Your task to perform on an android device: Go to Wikipedia Image 0: 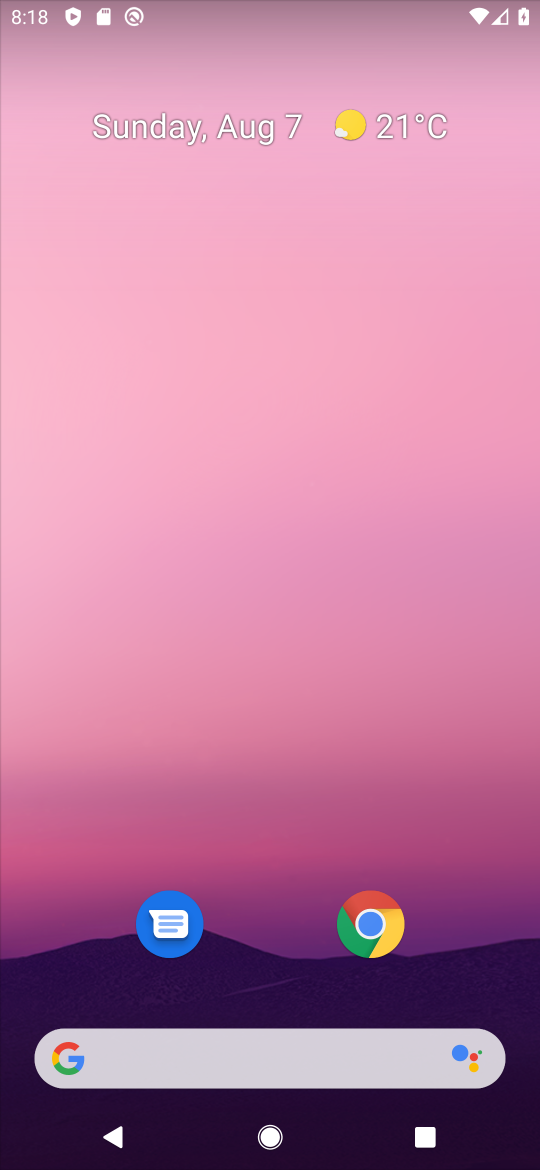
Step 0: click (380, 921)
Your task to perform on an android device: Go to Wikipedia Image 1: 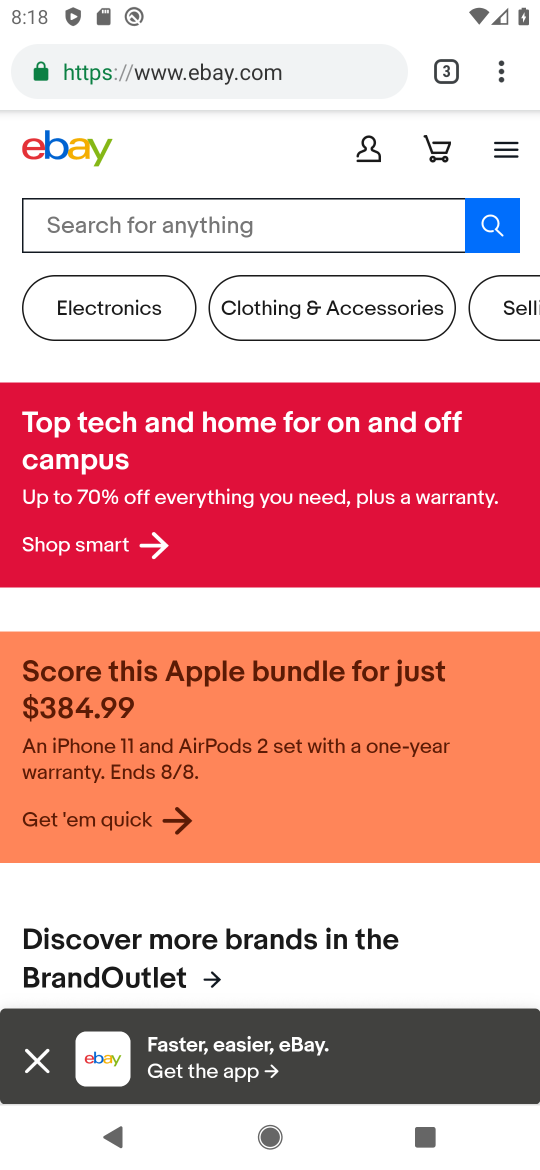
Step 1: click (503, 72)
Your task to perform on an android device: Go to Wikipedia Image 2: 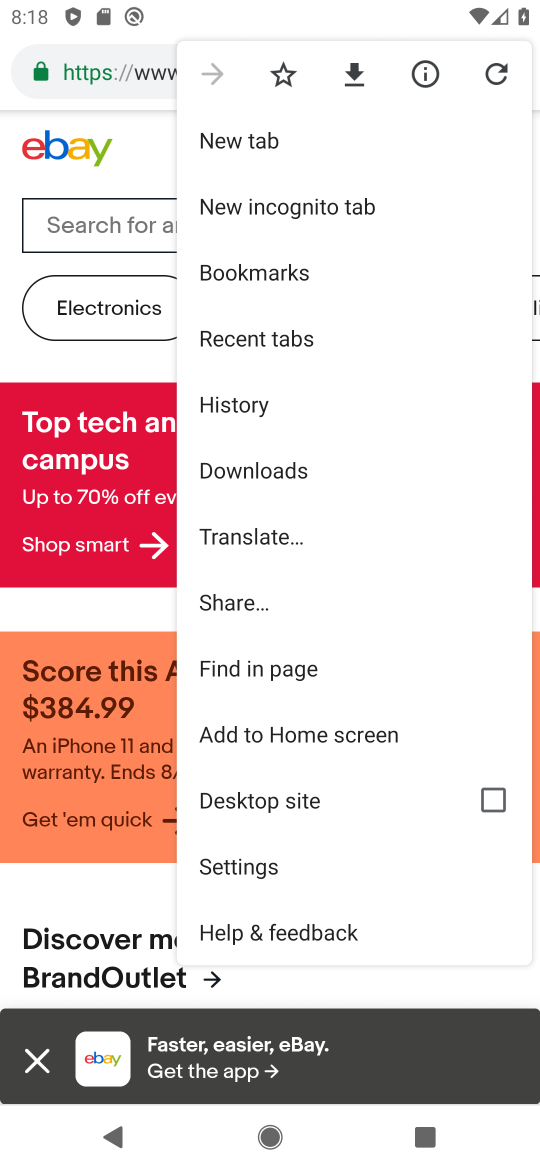
Step 2: click (324, 135)
Your task to perform on an android device: Go to Wikipedia Image 3: 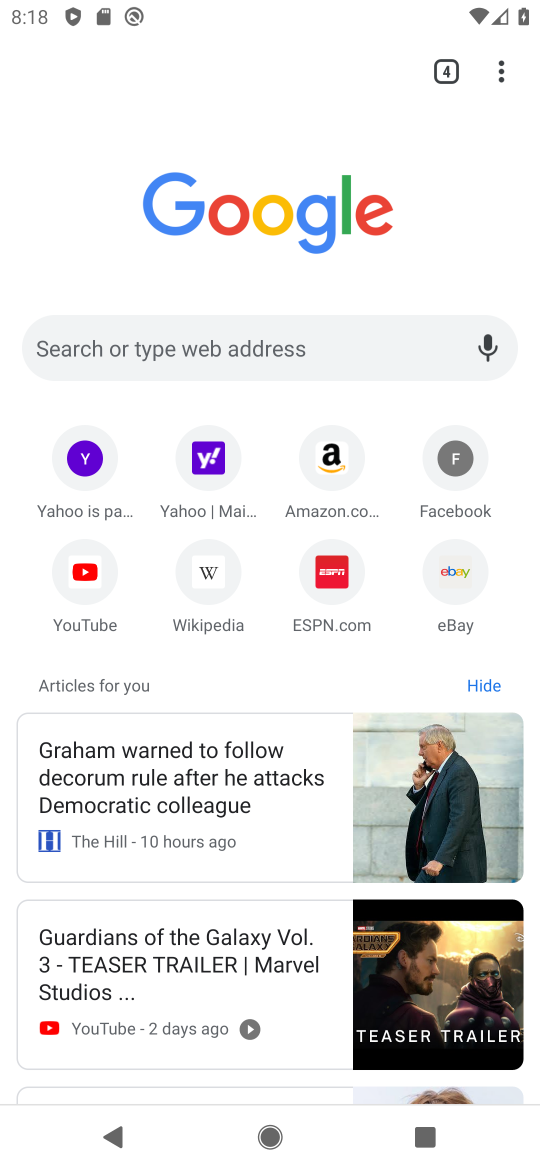
Step 3: click (212, 572)
Your task to perform on an android device: Go to Wikipedia Image 4: 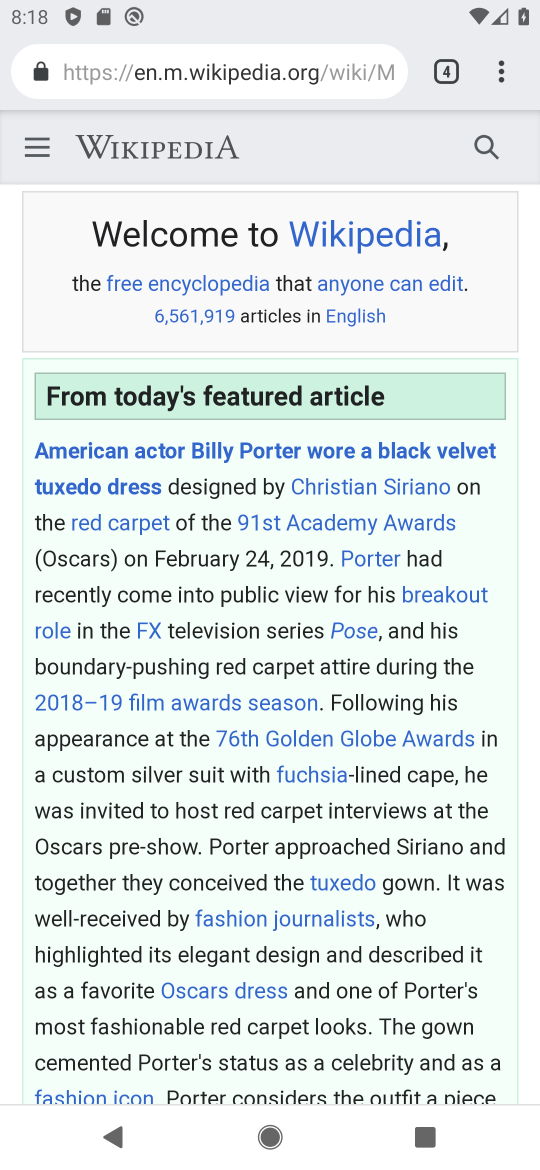
Step 4: task complete